Your task to perform on an android device: turn off location history Image 0: 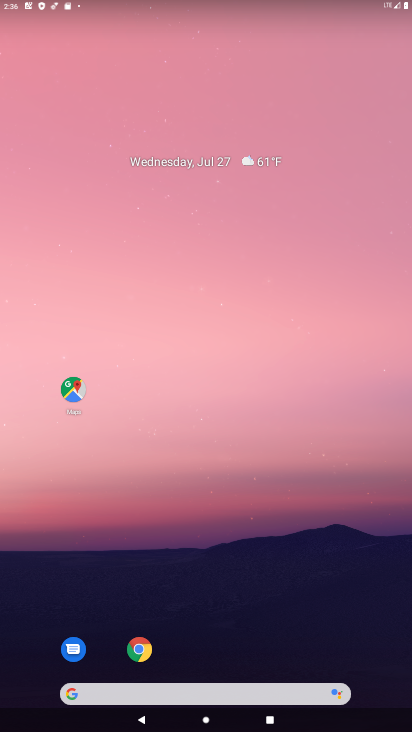
Step 0: drag from (190, 550) to (195, 134)
Your task to perform on an android device: turn off location history Image 1: 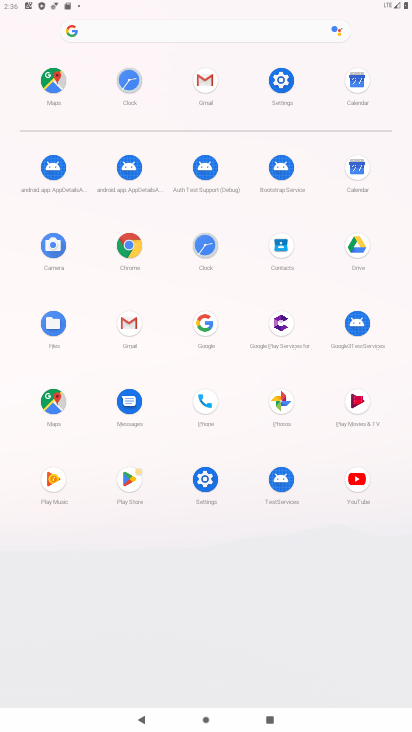
Step 1: click (285, 86)
Your task to perform on an android device: turn off location history Image 2: 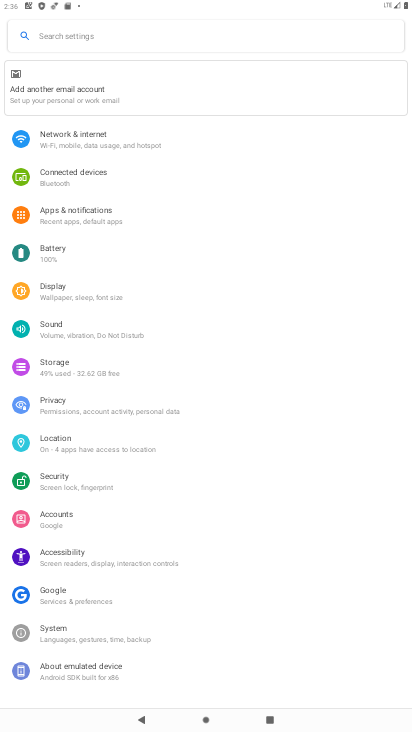
Step 2: click (64, 437)
Your task to perform on an android device: turn off location history Image 3: 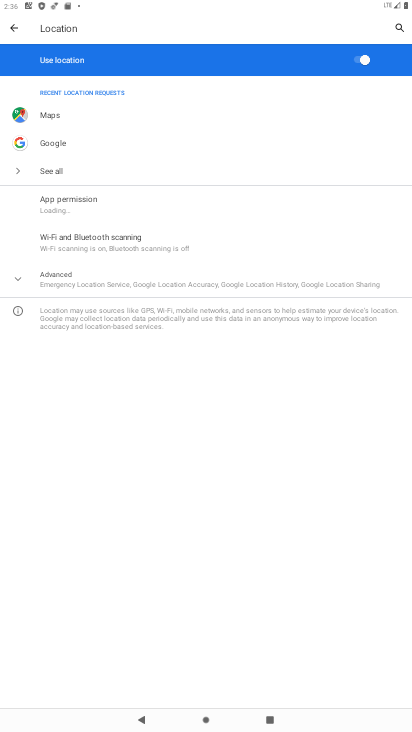
Step 3: click (92, 282)
Your task to perform on an android device: turn off location history Image 4: 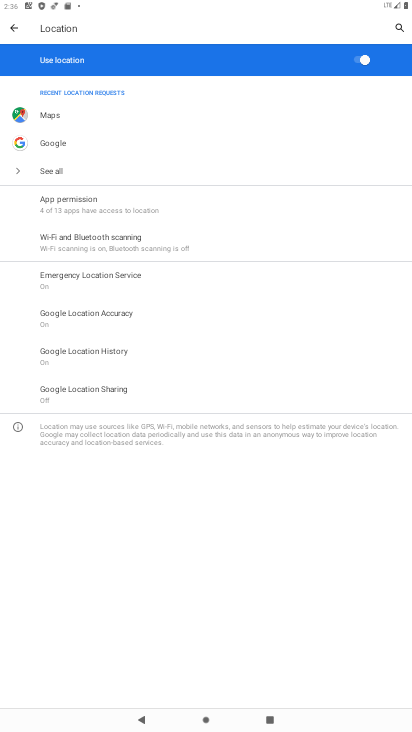
Step 4: click (78, 357)
Your task to perform on an android device: turn off location history Image 5: 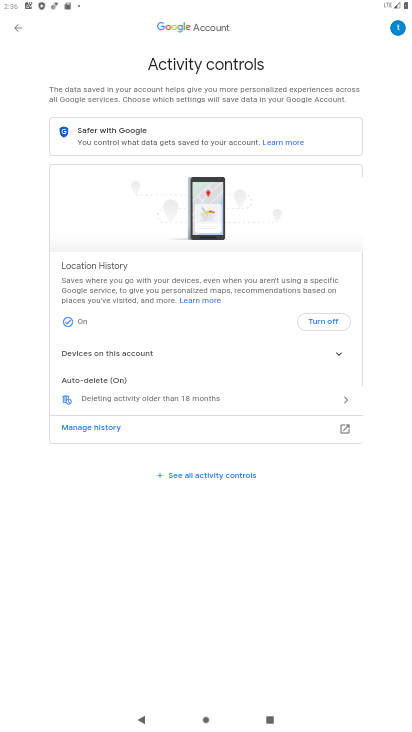
Step 5: click (327, 321)
Your task to perform on an android device: turn off location history Image 6: 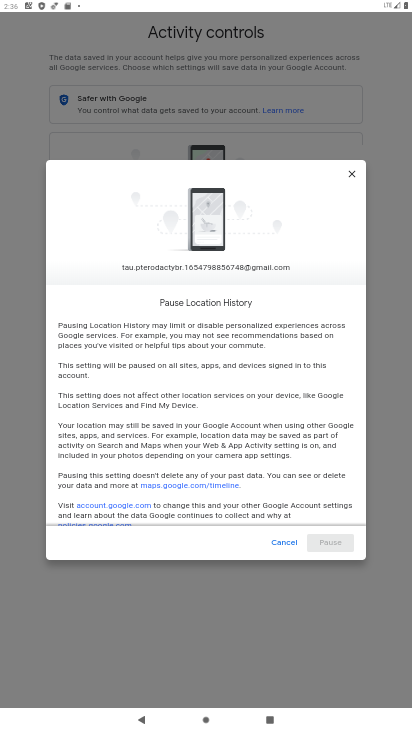
Step 6: drag from (303, 487) to (303, 333)
Your task to perform on an android device: turn off location history Image 7: 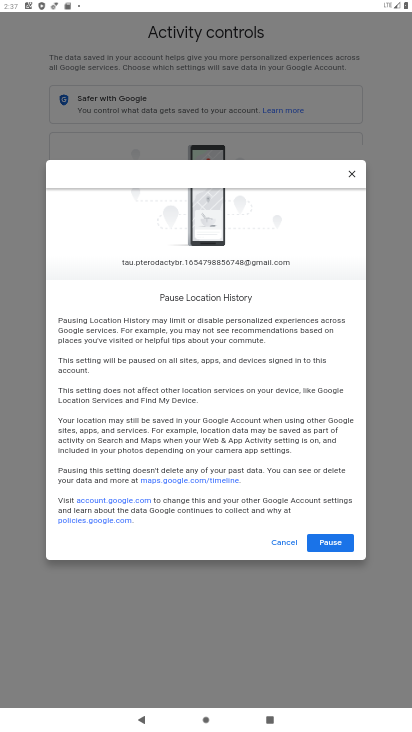
Step 7: click (315, 540)
Your task to perform on an android device: turn off location history Image 8: 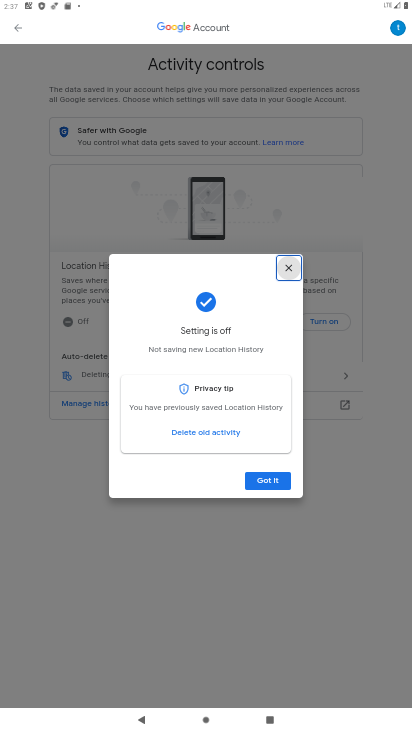
Step 8: click (260, 474)
Your task to perform on an android device: turn off location history Image 9: 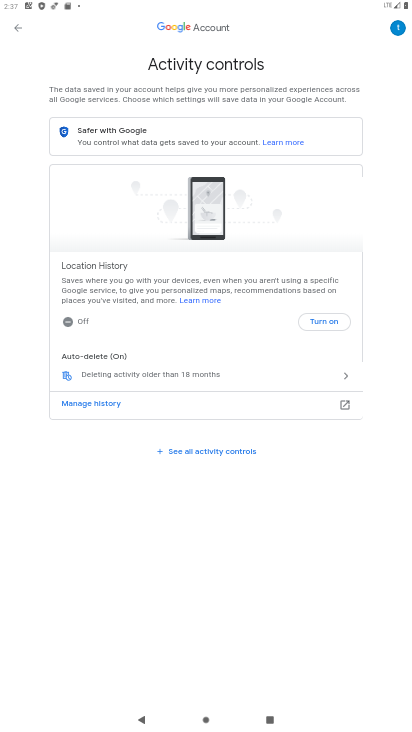
Step 9: task complete